Your task to perform on an android device: Open Chrome and go to settings Image 0: 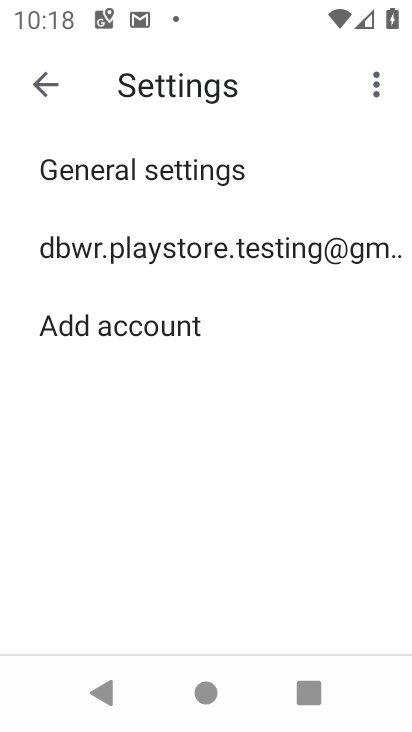
Step 0: press home button
Your task to perform on an android device: Open Chrome and go to settings Image 1: 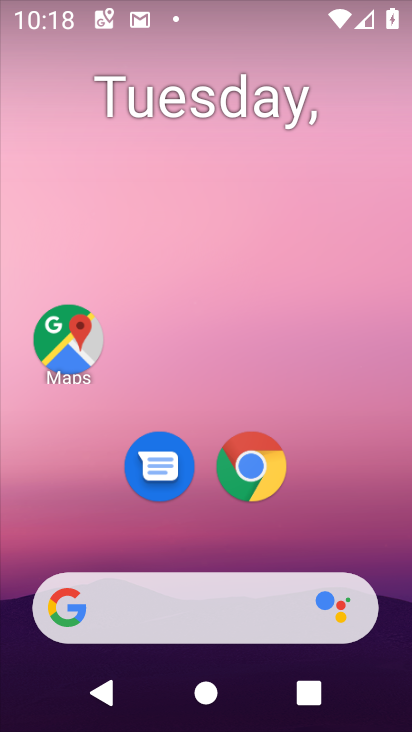
Step 1: drag from (243, 655) to (297, 243)
Your task to perform on an android device: Open Chrome and go to settings Image 2: 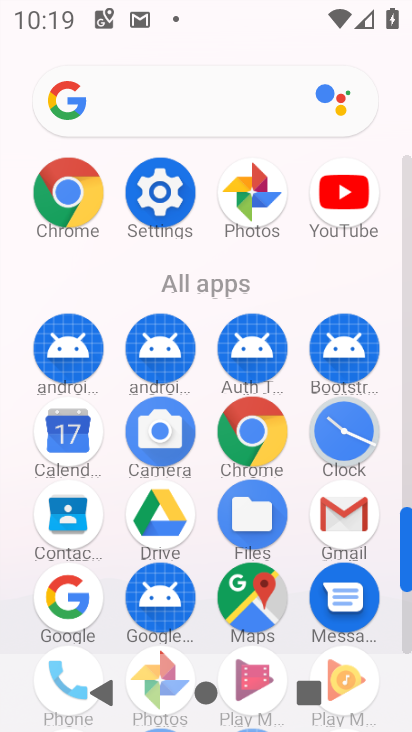
Step 2: click (82, 209)
Your task to perform on an android device: Open Chrome and go to settings Image 3: 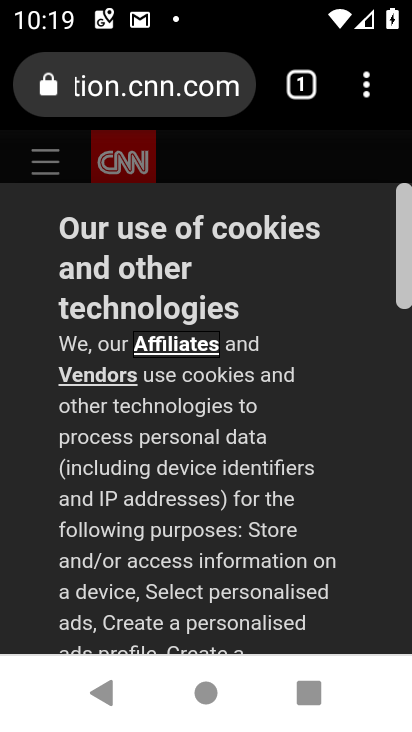
Step 3: click (371, 85)
Your task to perform on an android device: Open Chrome and go to settings Image 4: 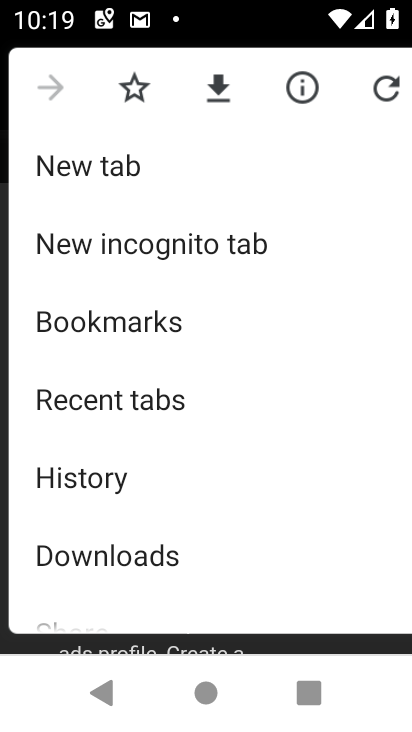
Step 4: drag from (156, 531) to (203, 211)
Your task to perform on an android device: Open Chrome and go to settings Image 5: 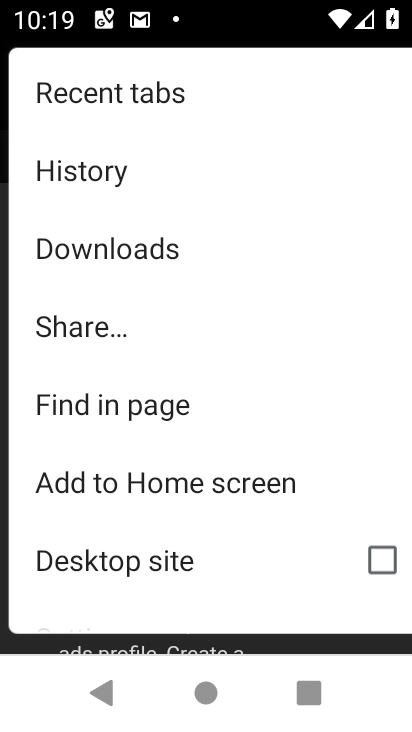
Step 5: drag from (180, 486) to (231, 241)
Your task to perform on an android device: Open Chrome and go to settings Image 6: 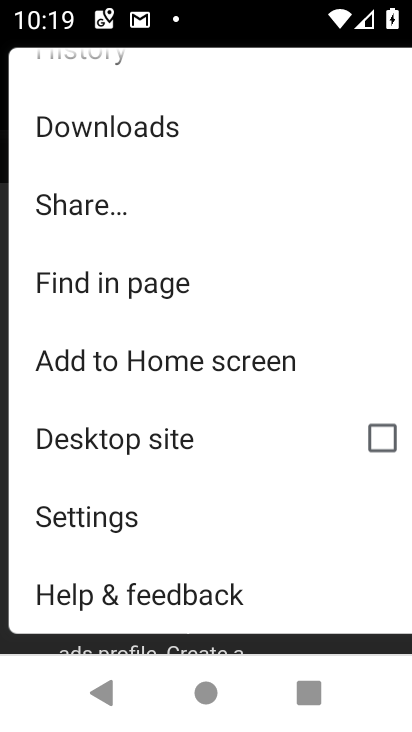
Step 6: click (106, 520)
Your task to perform on an android device: Open Chrome and go to settings Image 7: 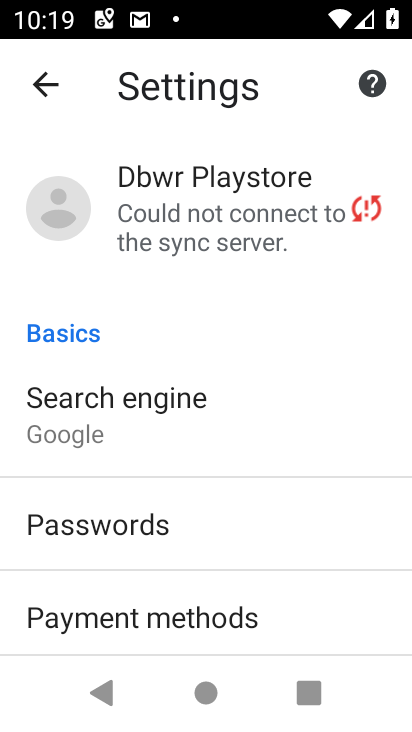
Step 7: task complete